Your task to perform on an android device: Go to Wikipedia Image 0: 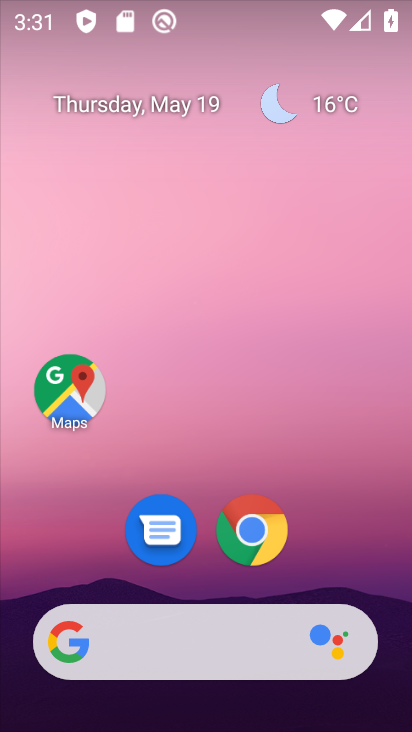
Step 0: drag from (351, 492) to (411, 188)
Your task to perform on an android device: Go to Wikipedia Image 1: 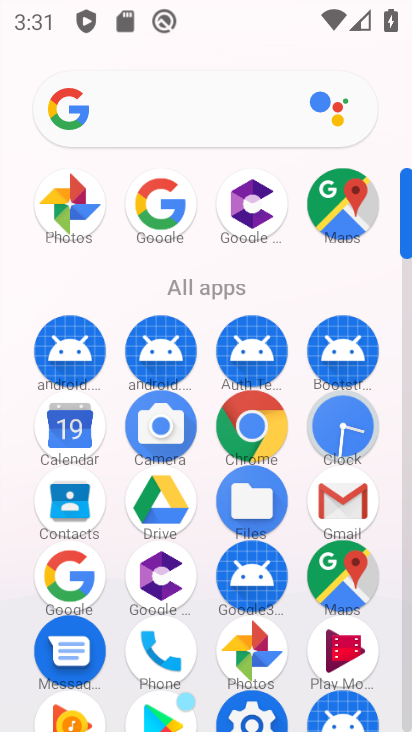
Step 1: click (167, 205)
Your task to perform on an android device: Go to Wikipedia Image 2: 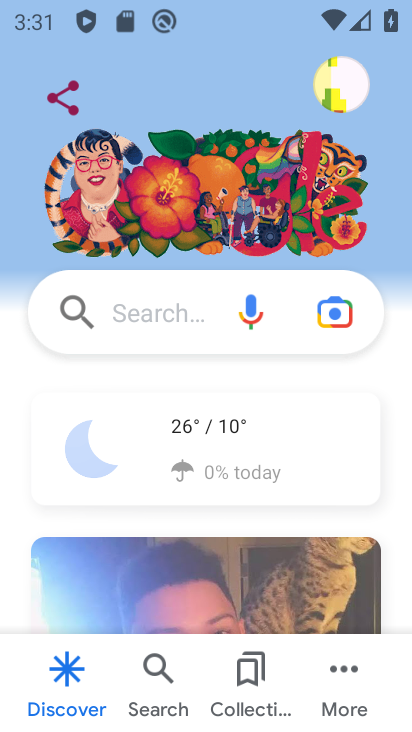
Step 2: drag from (140, 311) to (81, 311)
Your task to perform on an android device: Go to Wikipedia Image 3: 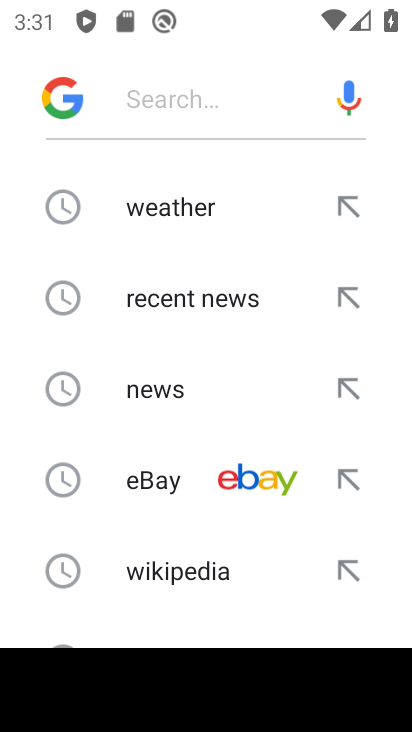
Step 3: click (196, 575)
Your task to perform on an android device: Go to Wikipedia Image 4: 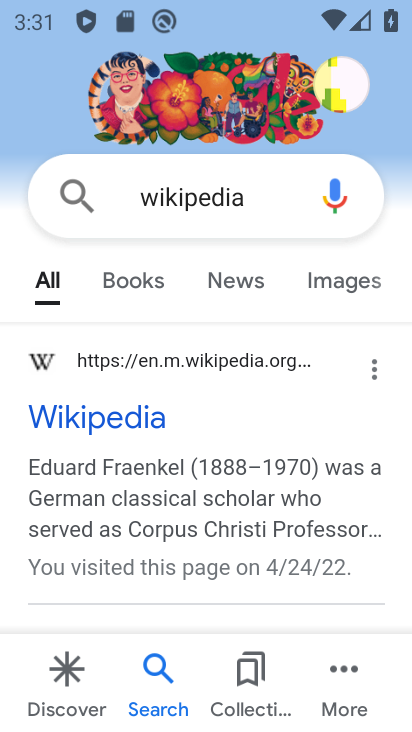
Step 4: click (143, 418)
Your task to perform on an android device: Go to Wikipedia Image 5: 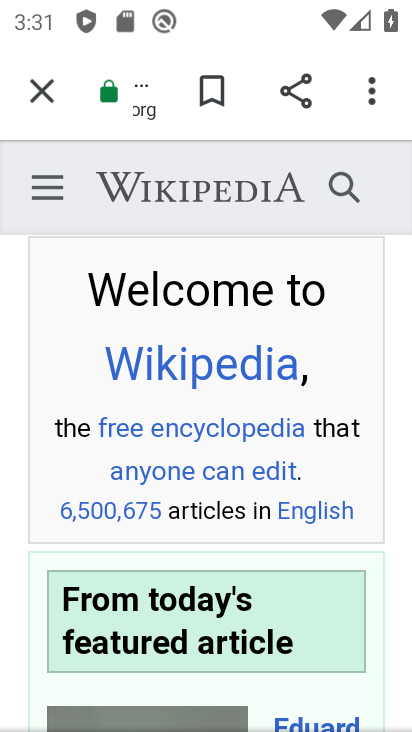
Step 5: task complete